Your task to perform on an android device: What's on my calendar tomorrow? Image 0: 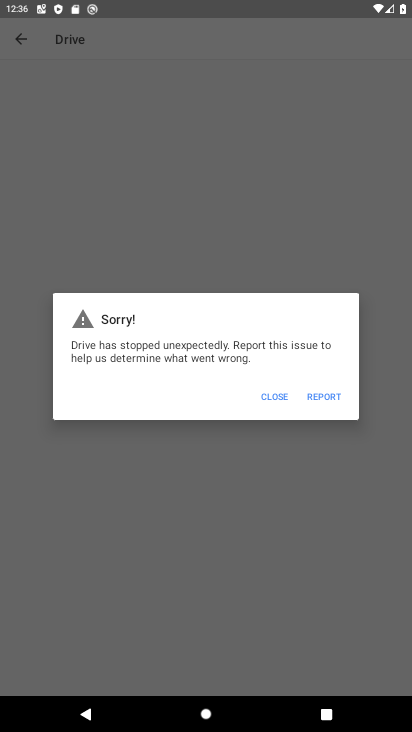
Step 0: press home button
Your task to perform on an android device: What's on my calendar tomorrow? Image 1: 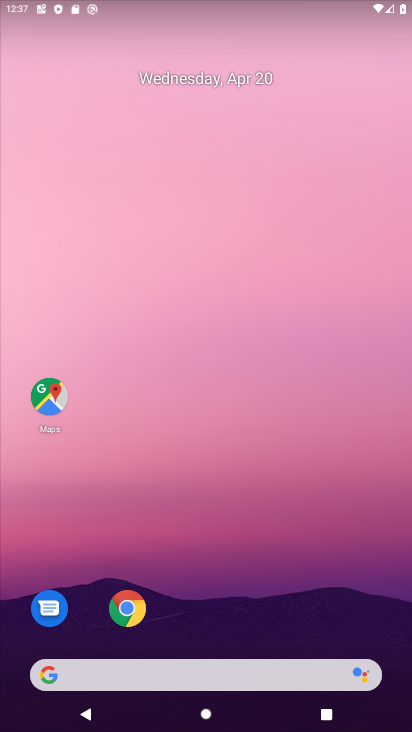
Step 1: drag from (231, 633) to (194, 30)
Your task to perform on an android device: What's on my calendar tomorrow? Image 2: 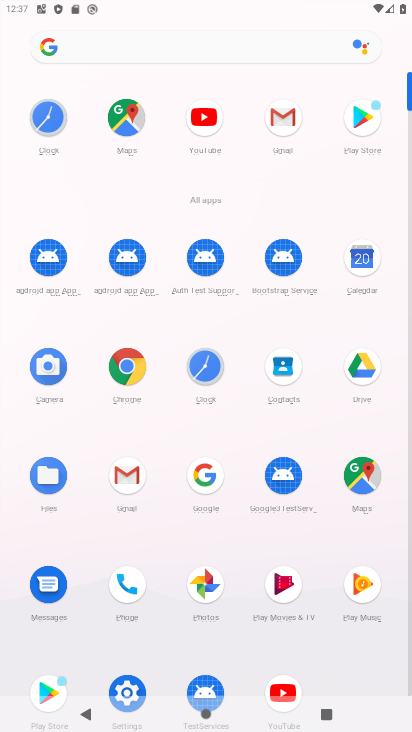
Step 2: click (359, 261)
Your task to perform on an android device: What's on my calendar tomorrow? Image 3: 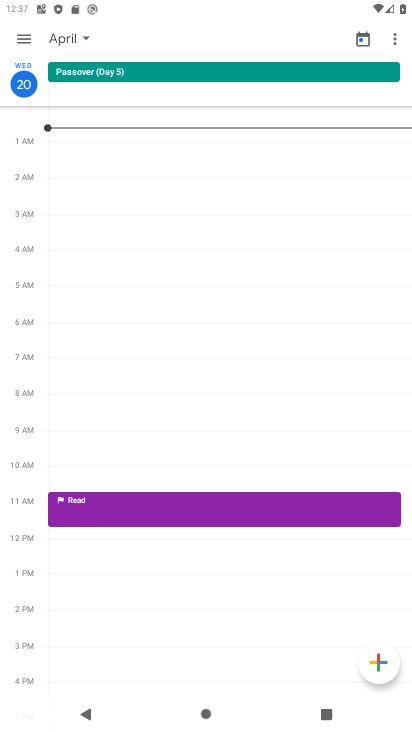
Step 3: click (81, 35)
Your task to perform on an android device: What's on my calendar tomorrow? Image 4: 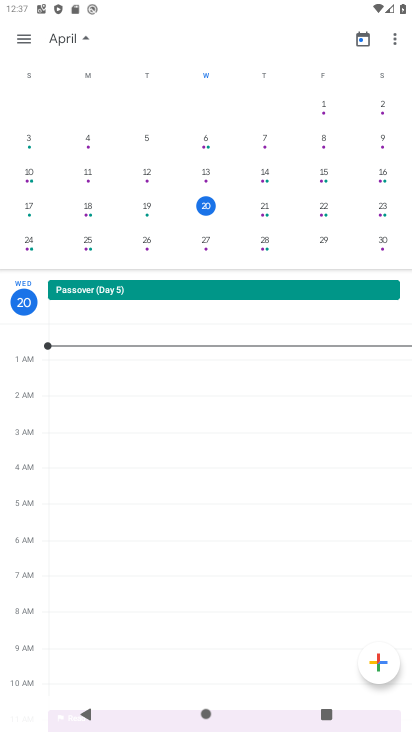
Step 4: click (262, 208)
Your task to perform on an android device: What's on my calendar tomorrow? Image 5: 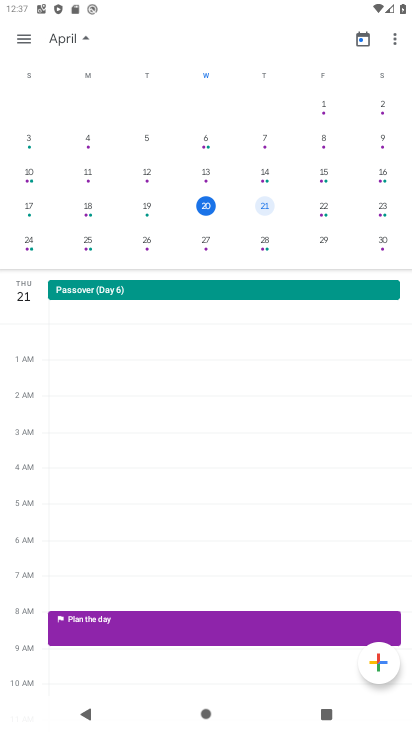
Step 5: click (262, 208)
Your task to perform on an android device: What's on my calendar tomorrow? Image 6: 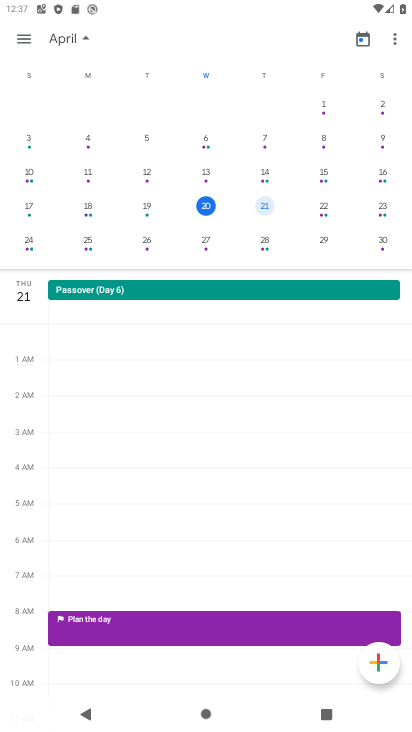
Step 6: click (262, 208)
Your task to perform on an android device: What's on my calendar tomorrow? Image 7: 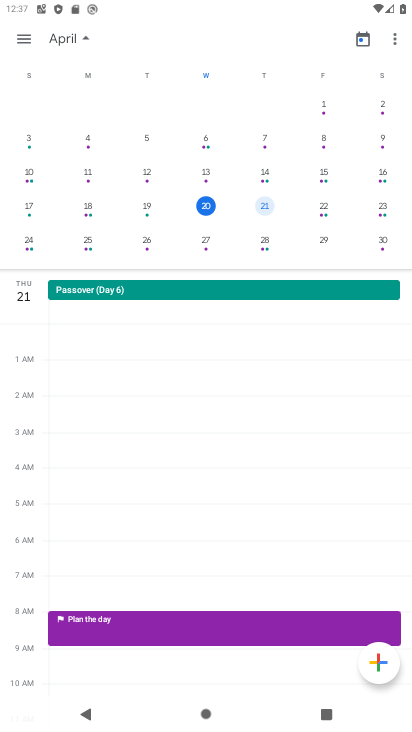
Step 7: click (85, 35)
Your task to perform on an android device: What's on my calendar tomorrow? Image 8: 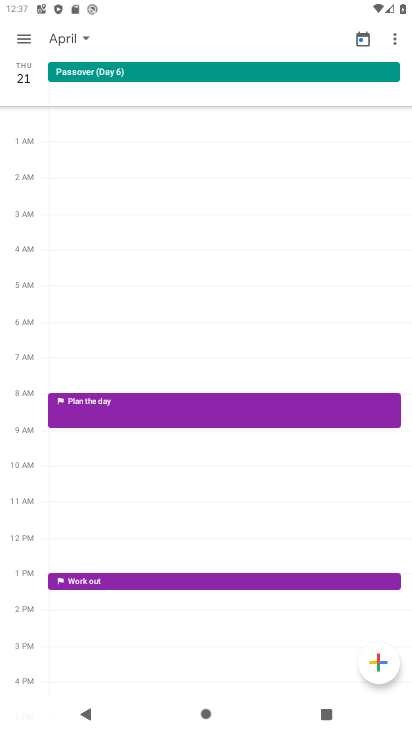
Step 8: task complete